Your task to perform on an android device: Open the calendar app, open the side menu, and click the "Day" option Image 0: 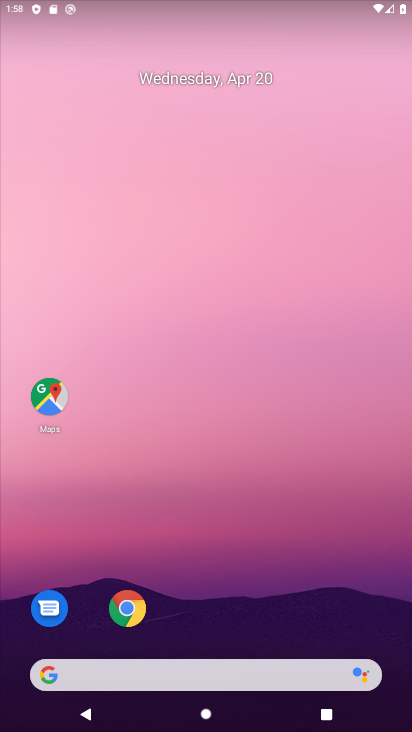
Step 0: drag from (318, 576) to (277, 119)
Your task to perform on an android device: Open the calendar app, open the side menu, and click the "Day" option Image 1: 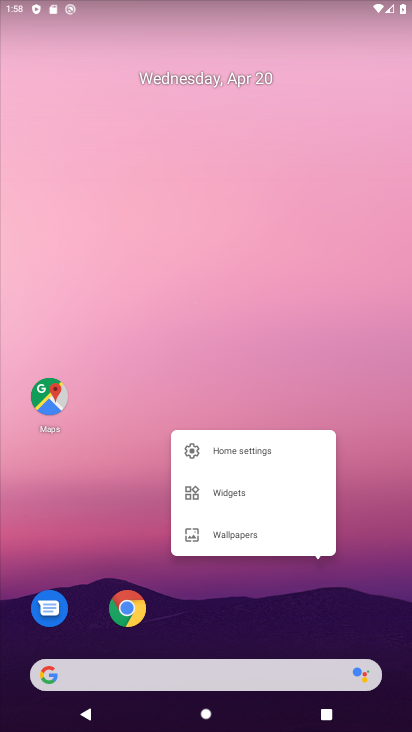
Step 1: click (112, 522)
Your task to perform on an android device: Open the calendar app, open the side menu, and click the "Day" option Image 2: 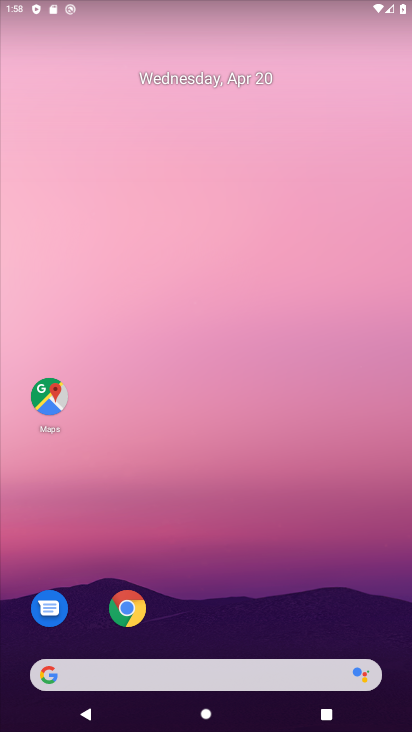
Step 2: drag from (264, 590) to (210, 117)
Your task to perform on an android device: Open the calendar app, open the side menu, and click the "Day" option Image 3: 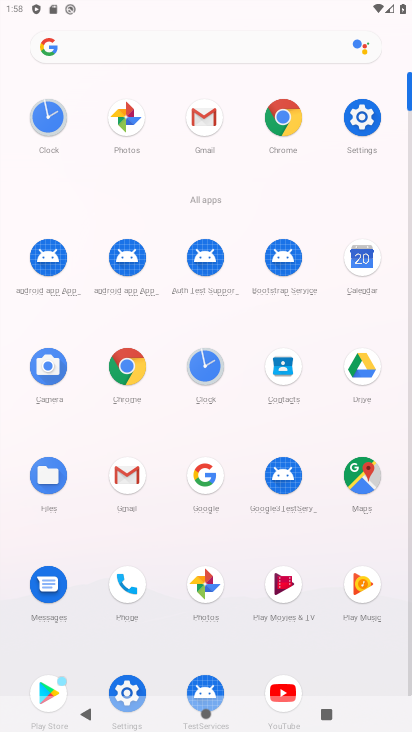
Step 3: click (367, 141)
Your task to perform on an android device: Open the calendar app, open the side menu, and click the "Day" option Image 4: 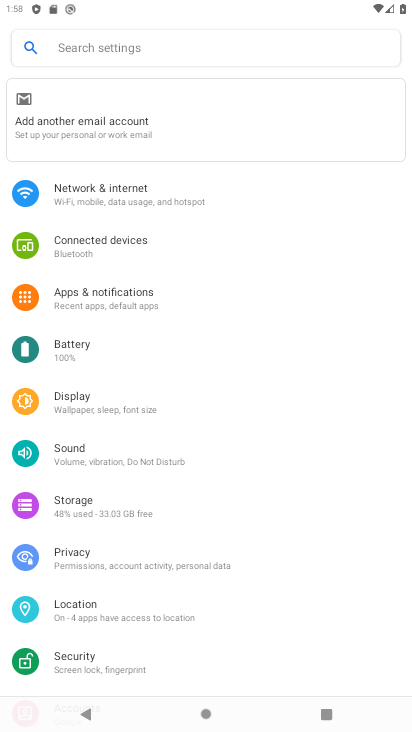
Step 4: click (87, 720)
Your task to perform on an android device: Open the calendar app, open the side menu, and click the "Day" option Image 5: 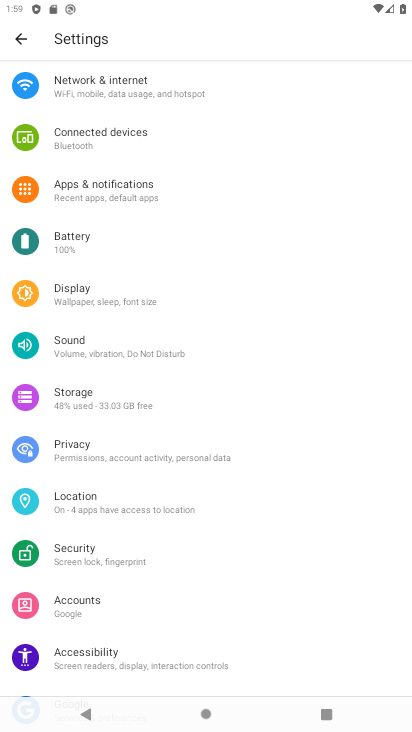
Step 5: click (84, 703)
Your task to perform on an android device: Open the calendar app, open the side menu, and click the "Day" option Image 6: 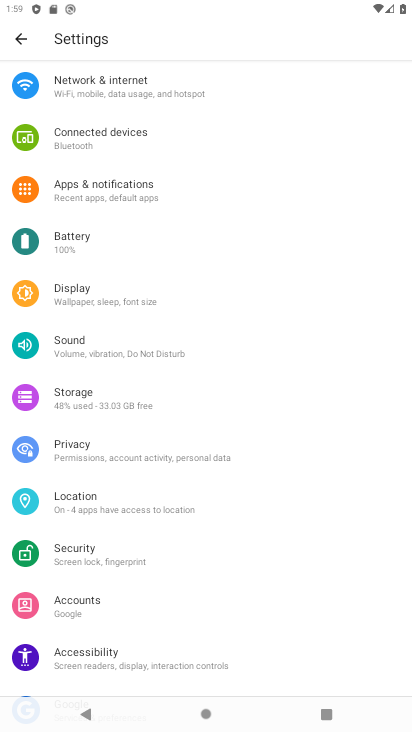
Step 6: click (84, 709)
Your task to perform on an android device: Open the calendar app, open the side menu, and click the "Day" option Image 7: 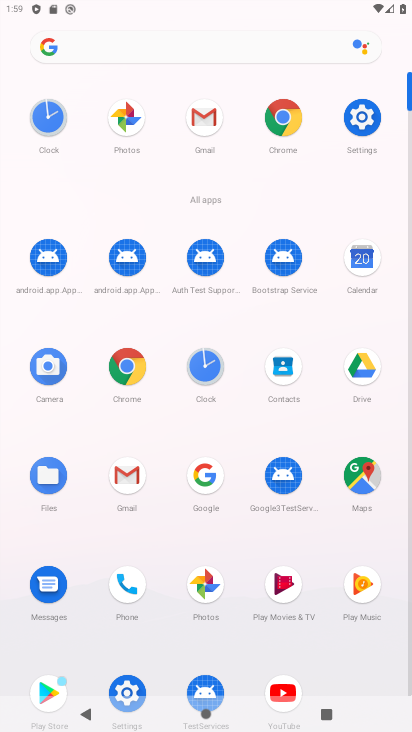
Step 7: click (353, 277)
Your task to perform on an android device: Open the calendar app, open the side menu, and click the "Day" option Image 8: 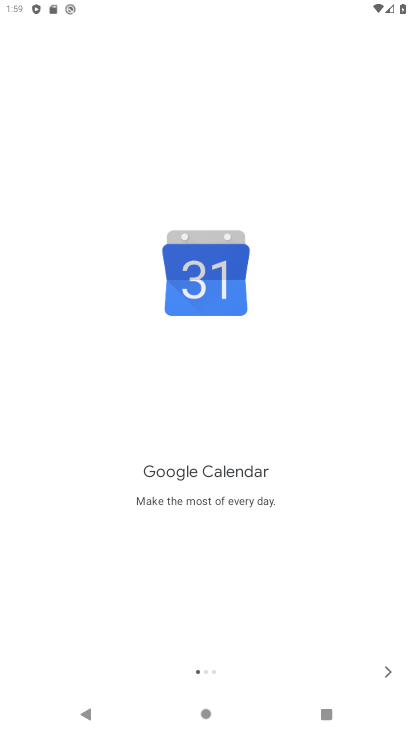
Step 8: click (381, 670)
Your task to perform on an android device: Open the calendar app, open the side menu, and click the "Day" option Image 9: 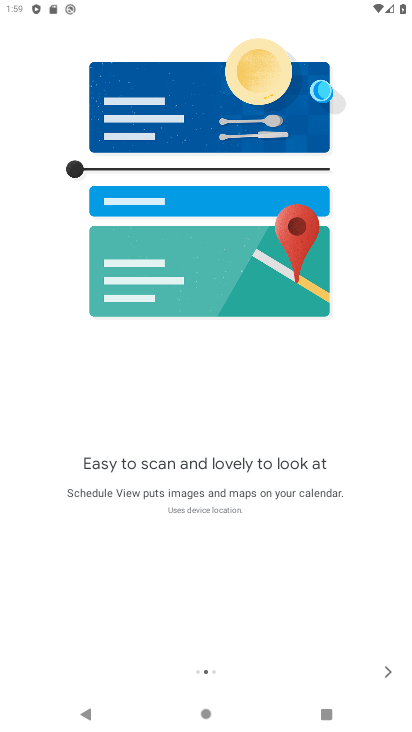
Step 9: click (384, 681)
Your task to perform on an android device: Open the calendar app, open the side menu, and click the "Day" option Image 10: 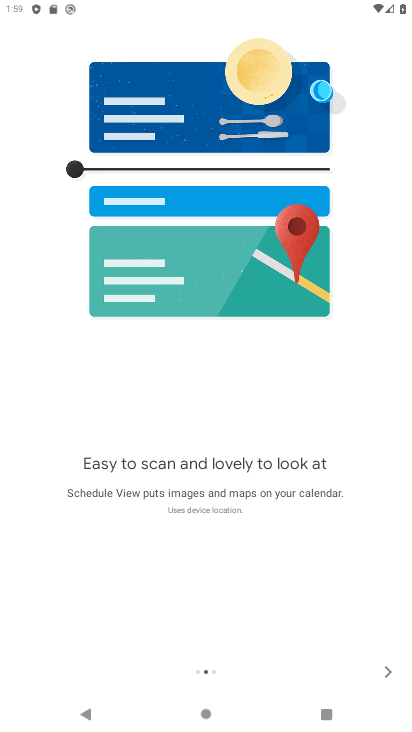
Step 10: click (384, 681)
Your task to perform on an android device: Open the calendar app, open the side menu, and click the "Day" option Image 11: 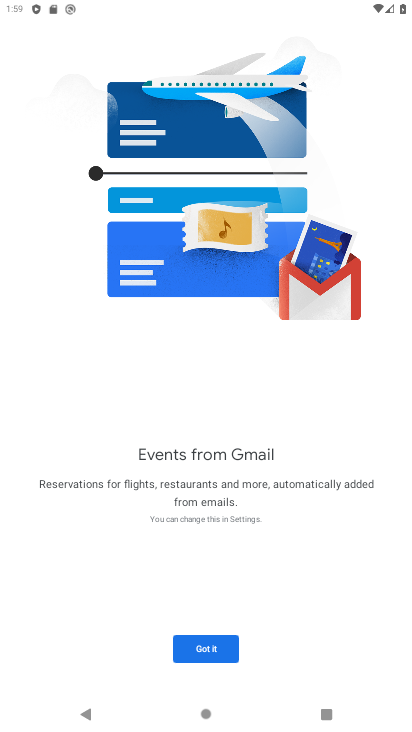
Step 11: click (212, 650)
Your task to perform on an android device: Open the calendar app, open the side menu, and click the "Day" option Image 12: 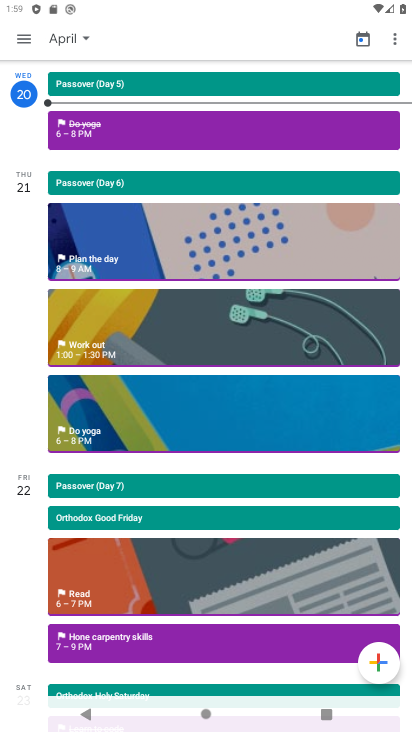
Step 12: click (16, 28)
Your task to perform on an android device: Open the calendar app, open the side menu, and click the "Day" option Image 13: 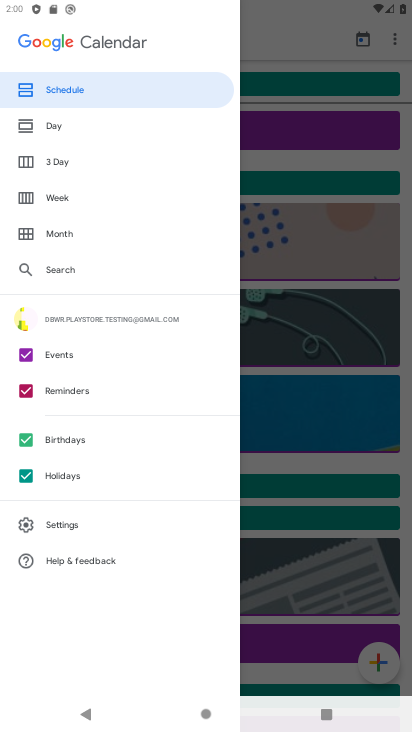
Step 13: click (22, 116)
Your task to perform on an android device: Open the calendar app, open the side menu, and click the "Day" option Image 14: 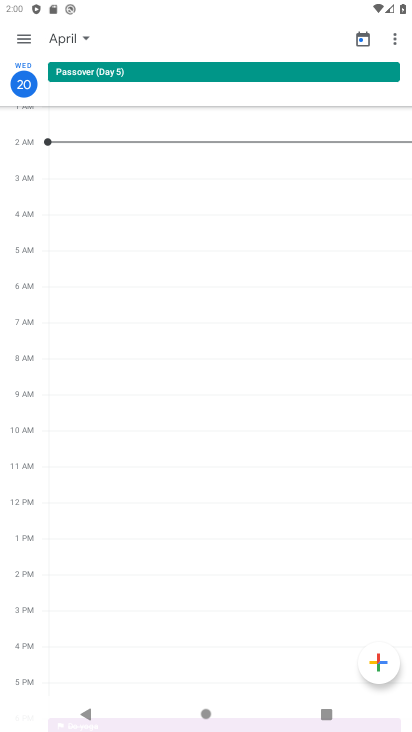
Step 14: task complete